Your task to perform on an android device: open wifi settings Image 0: 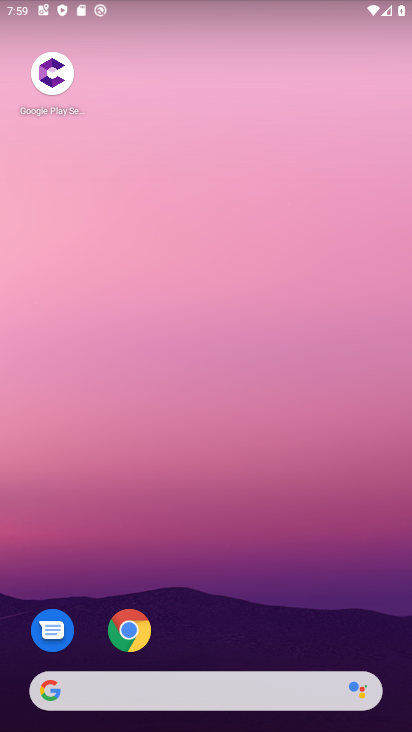
Step 0: drag from (324, 576) to (206, 41)
Your task to perform on an android device: open wifi settings Image 1: 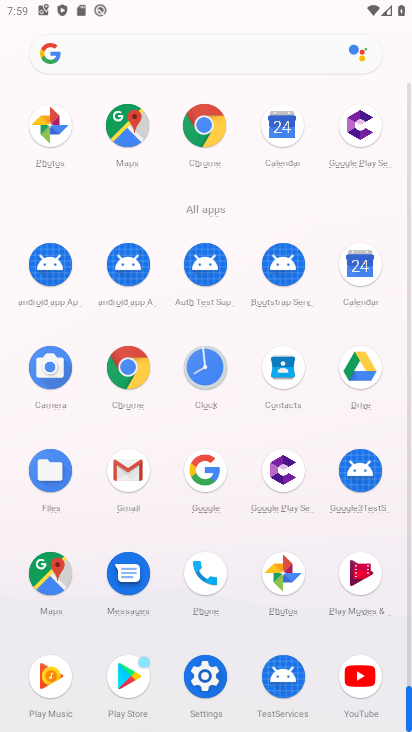
Step 1: drag from (6, 654) to (3, 320)
Your task to perform on an android device: open wifi settings Image 2: 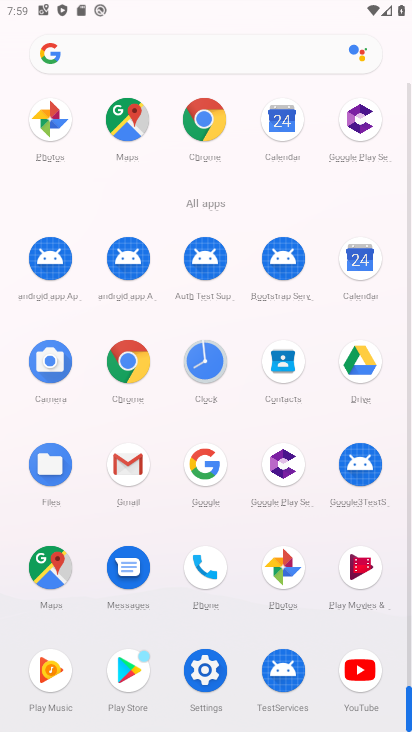
Step 2: click (208, 672)
Your task to perform on an android device: open wifi settings Image 3: 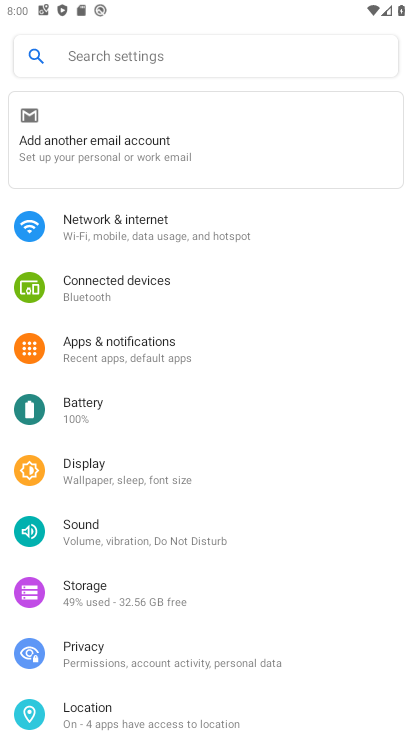
Step 3: click (194, 221)
Your task to perform on an android device: open wifi settings Image 4: 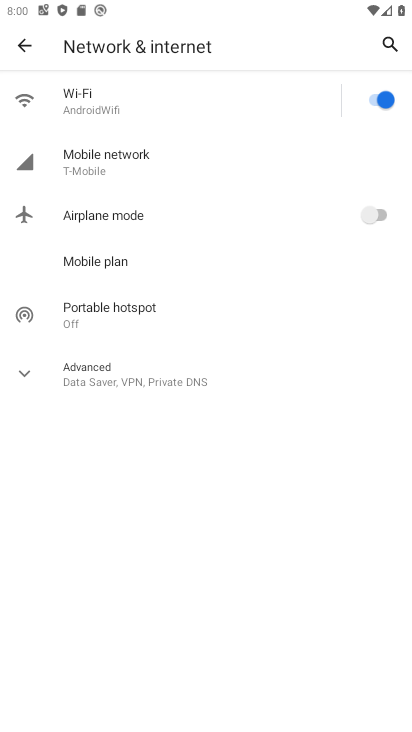
Step 4: click (112, 94)
Your task to perform on an android device: open wifi settings Image 5: 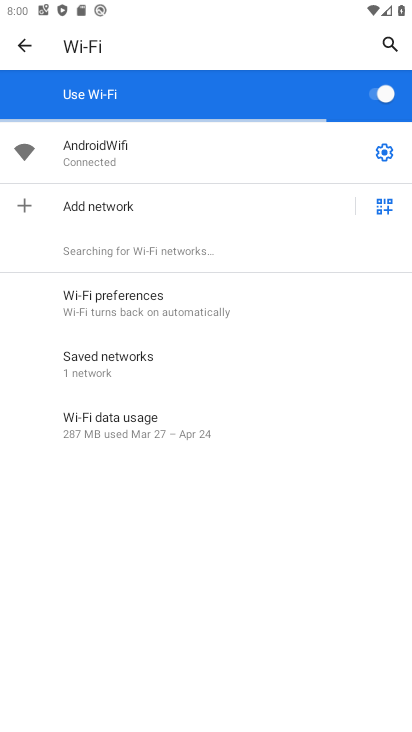
Step 5: task complete